Your task to perform on an android device: open a bookmark in the chrome app Image 0: 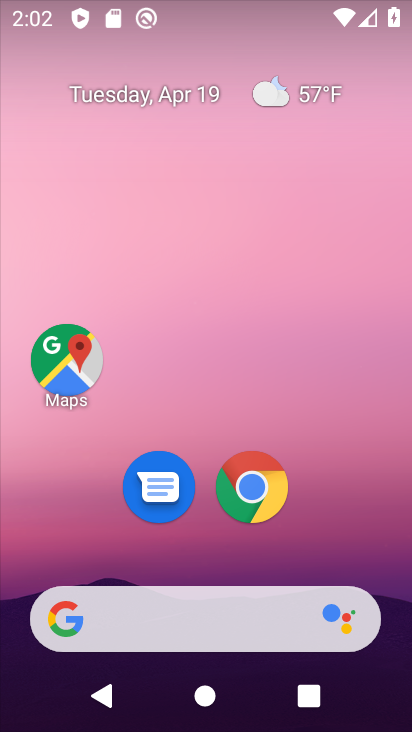
Step 0: click (249, 512)
Your task to perform on an android device: open a bookmark in the chrome app Image 1: 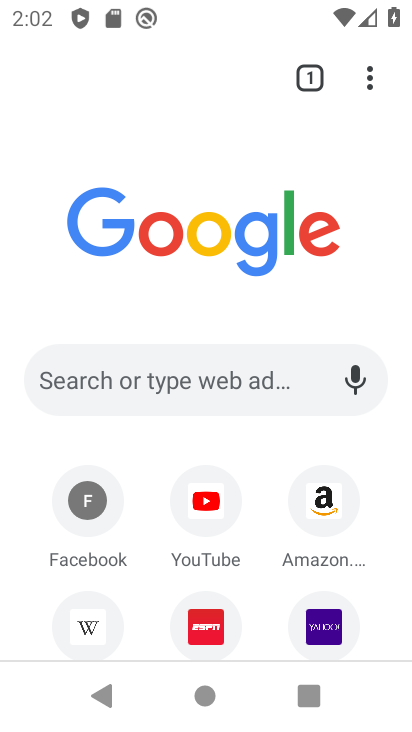
Step 1: click (375, 86)
Your task to perform on an android device: open a bookmark in the chrome app Image 2: 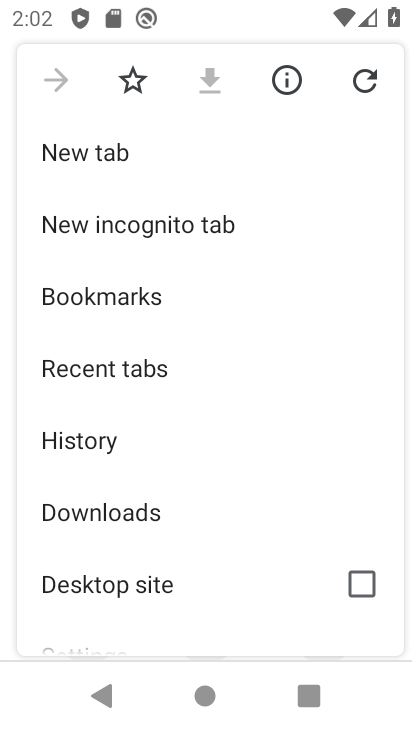
Step 2: click (142, 320)
Your task to perform on an android device: open a bookmark in the chrome app Image 3: 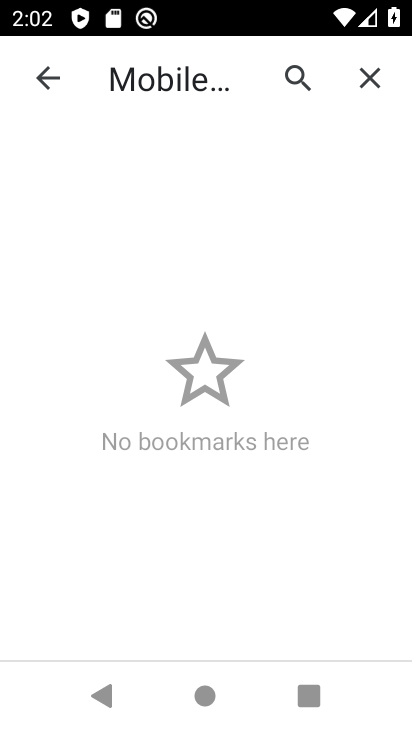
Step 3: task complete